Your task to perform on an android device: turn on location history Image 0: 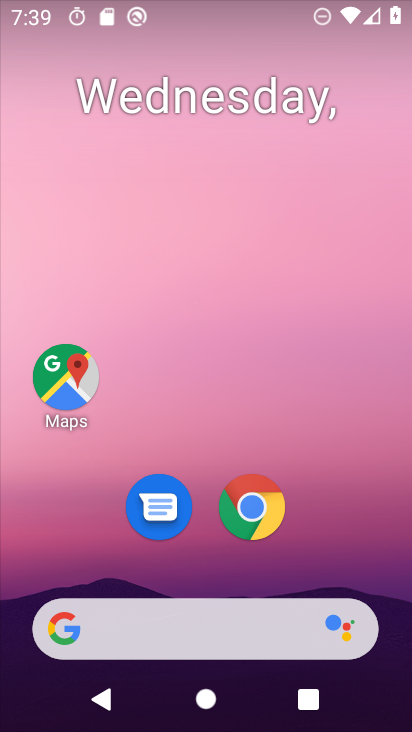
Step 0: drag from (253, 670) to (289, 122)
Your task to perform on an android device: turn on location history Image 1: 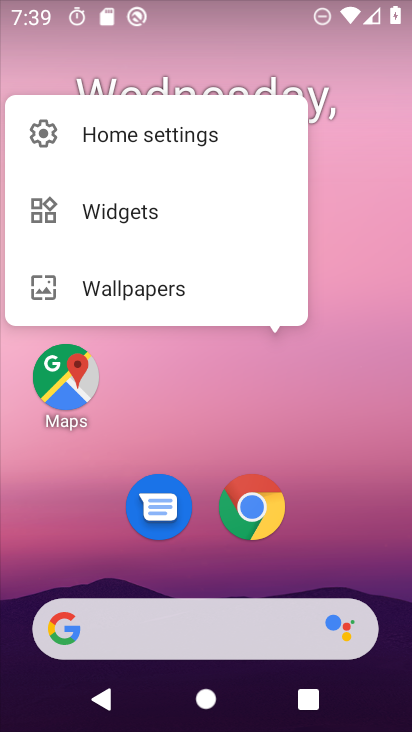
Step 1: click (367, 270)
Your task to perform on an android device: turn on location history Image 2: 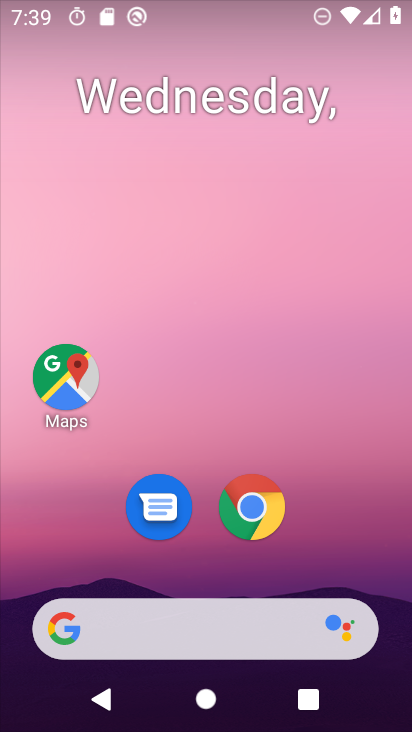
Step 2: drag from (237, 606) to (224, 115)
Your task to perform on an android device: turn on location history Image 3: 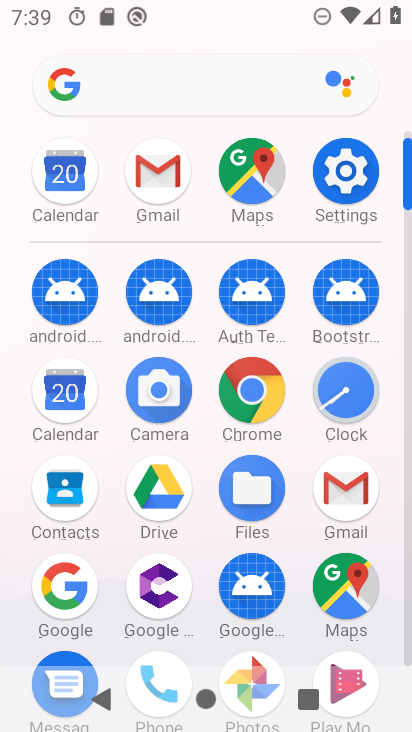
Step 3: click (352, 185)
Your task to perform on an android device: turn on location history Image 4: 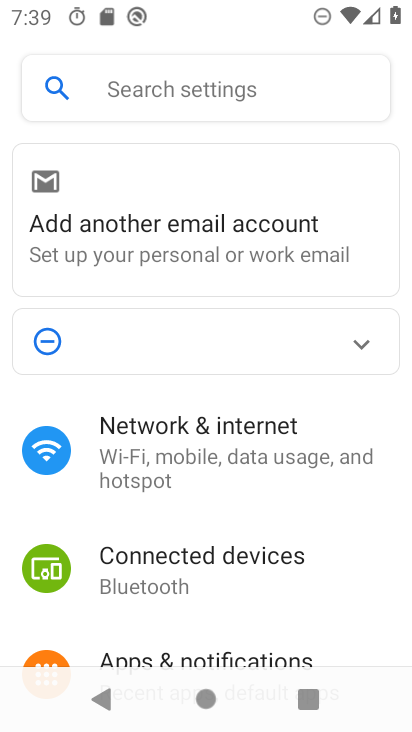
Step 4: click (209, 88)
Your task to perform on an android device: turn on location history Image 5: 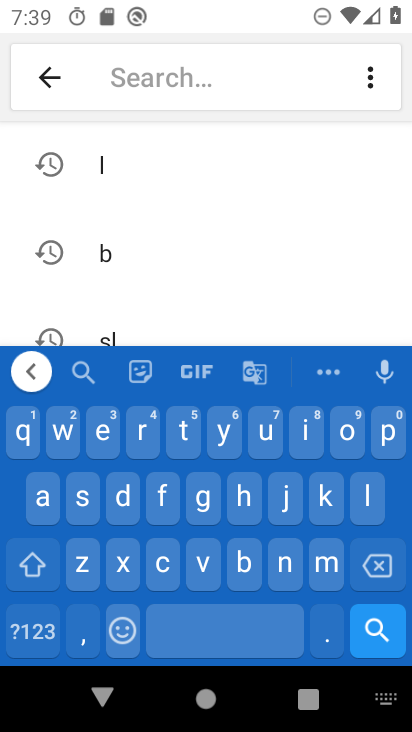
Step 5: click (150, 167)
Your task to perform on an android device: turn on location history Image 6: 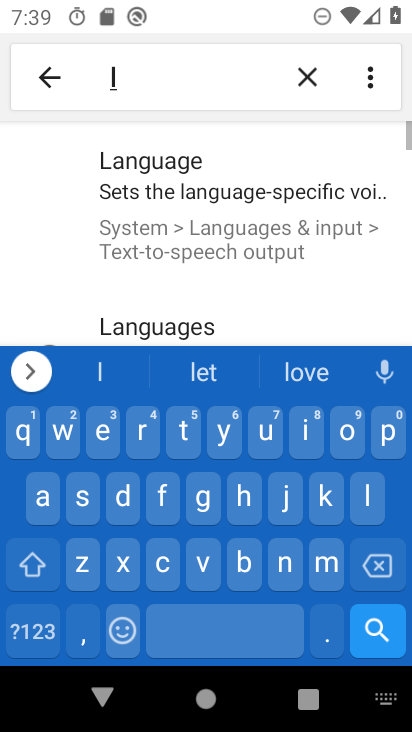
Step 6: drag from (204, 282) to (222, 102)
Your task to perform on an android device: turn on location history Image 7: 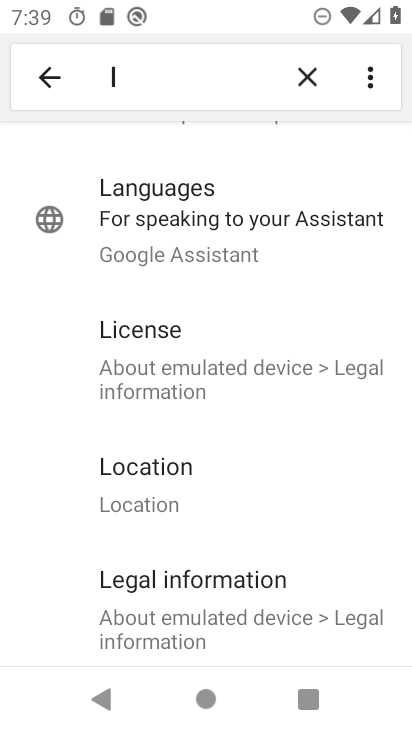
Step 7: click (159, 487)
Your task to perform on an android device: turn on location history Image 8: 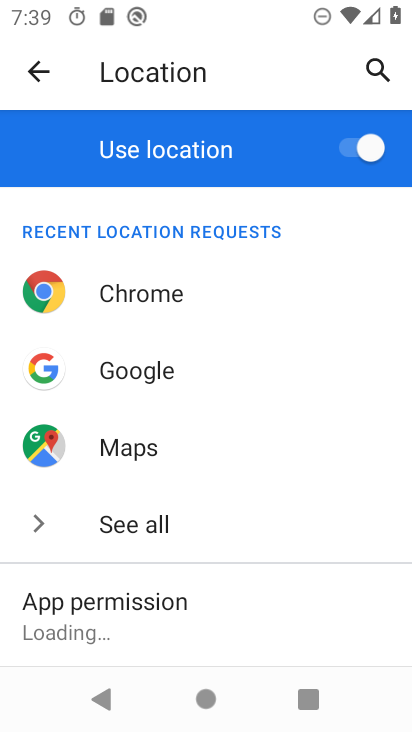
Step 8: drag from (190, 531) to (219, 250)
Your task to perform on an android device: turn on location history Image 9: 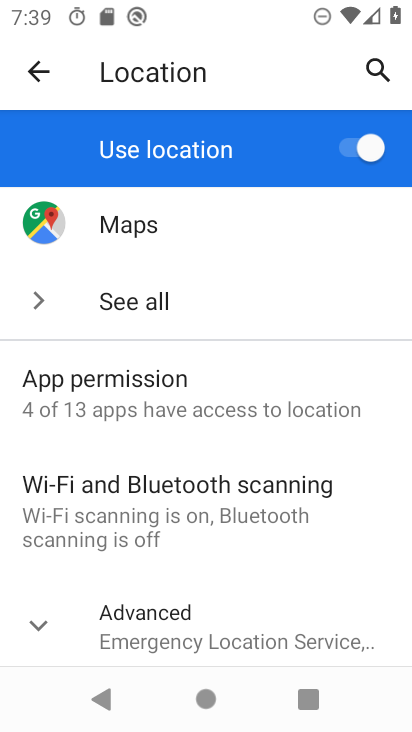
Step 9: click (98, 613)
Your task to perform on an android device: turn on location history Image 10: 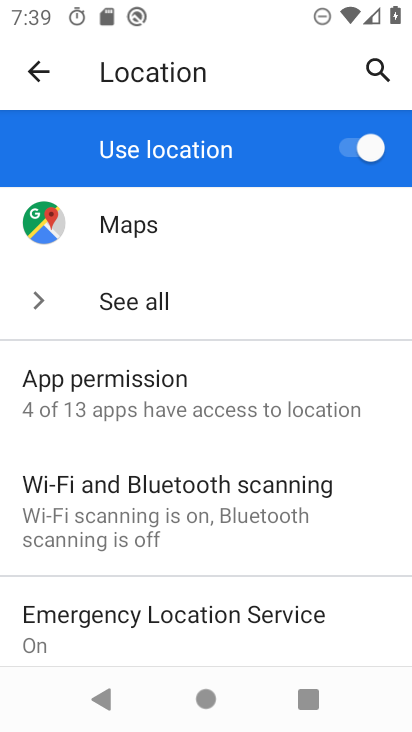
Step 10: drag from (193, 586) to (215, 385)
Your task to perform on an android device: turn on location history Image 11: 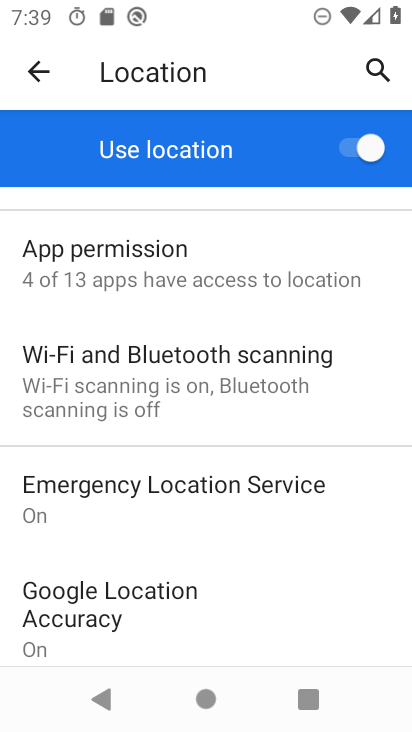
Step 11: drag from (208, 571) to (208, 337)
Your task to perform on an android device: turn on location history Image 12: 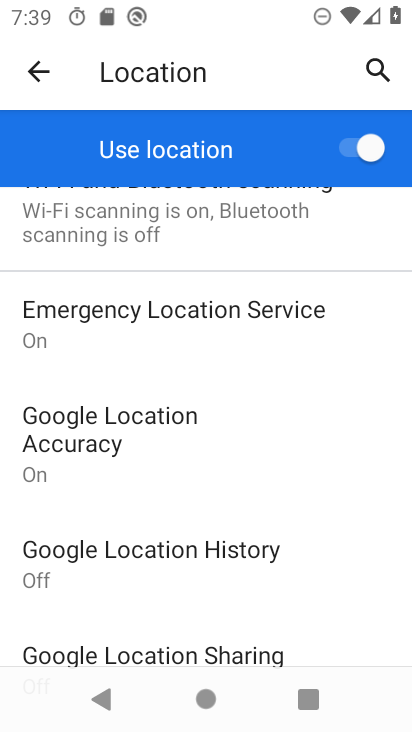
Step 12: click (140, 538)
Your task to perform on an android device: turn on location history Image 13: 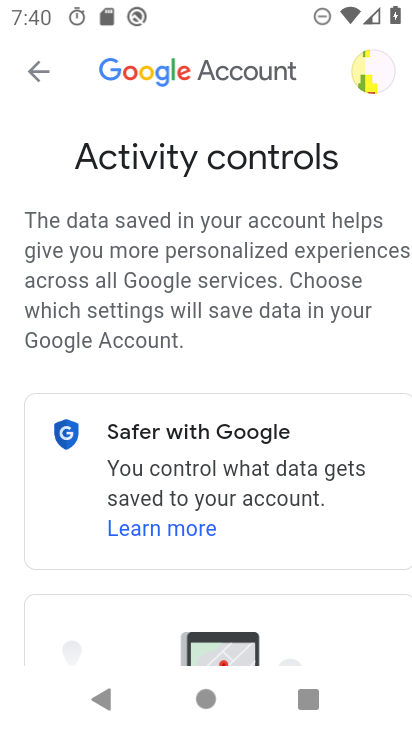
Step 13: drag from (221, 570) to (205, 320)
Your task to perform on an android device: turn on location history Image 14: 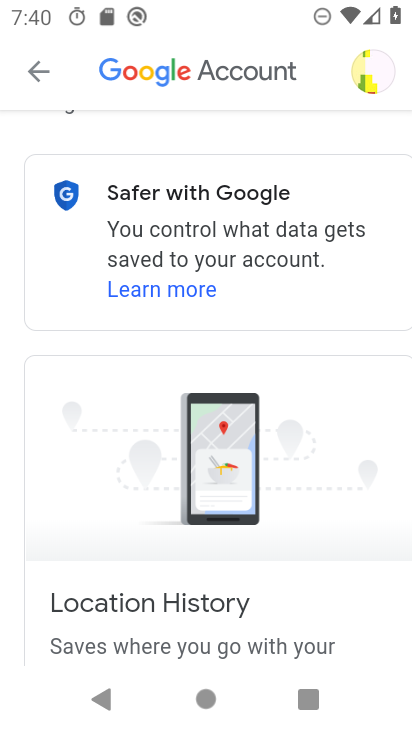
Step 14: drag from (237, 454) to (233, 322)
Your task to perform on an android device: turn on location history Image 15: 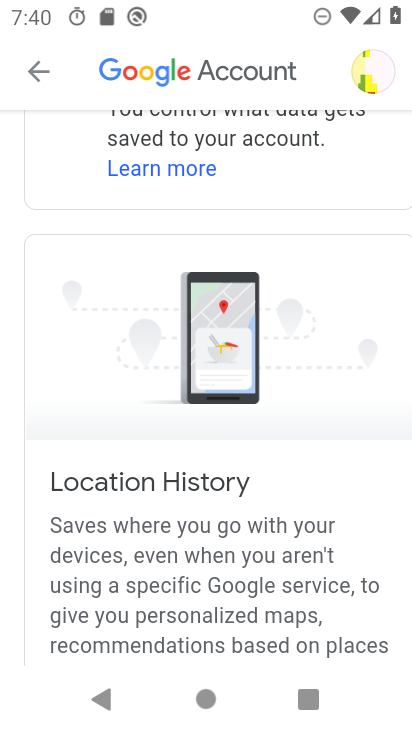
Step 15: drag from (233, 541) to (241, 244)
Your task to perform on an android device: turn on location history Image 16: 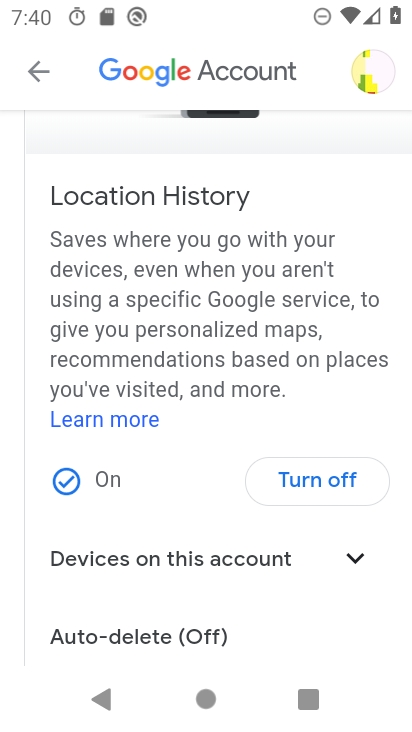
Step 16: click (99, 484)
Your task to perform on an android device: turn on location history Image 17: 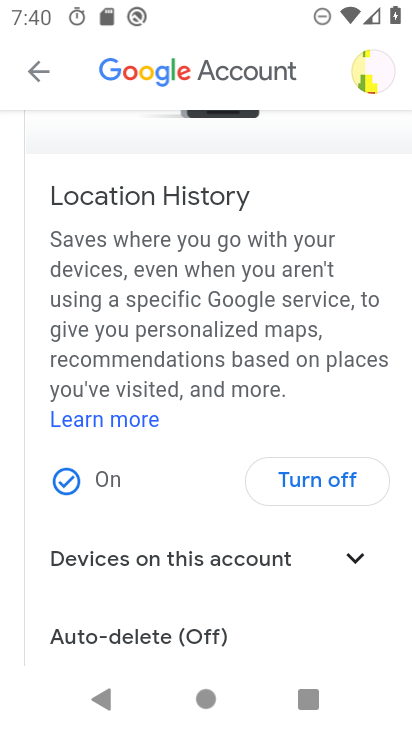
Step 17: click (99, 484)
Your task to perform on an android device: turn on location history Image 18: 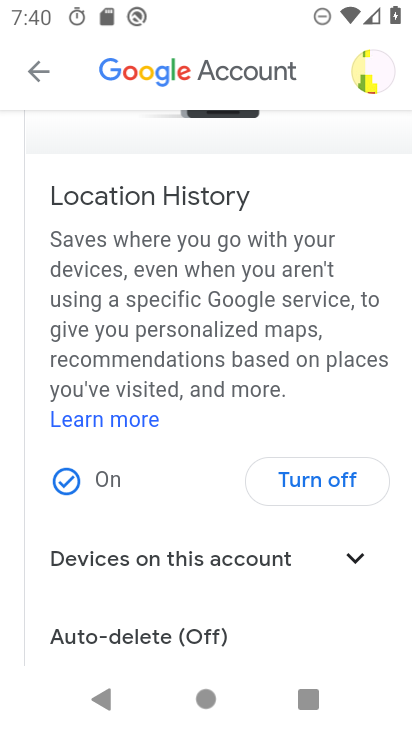
Step 18: click (99, 484)
Your task to perform on an android device: turn on location history Image 19: 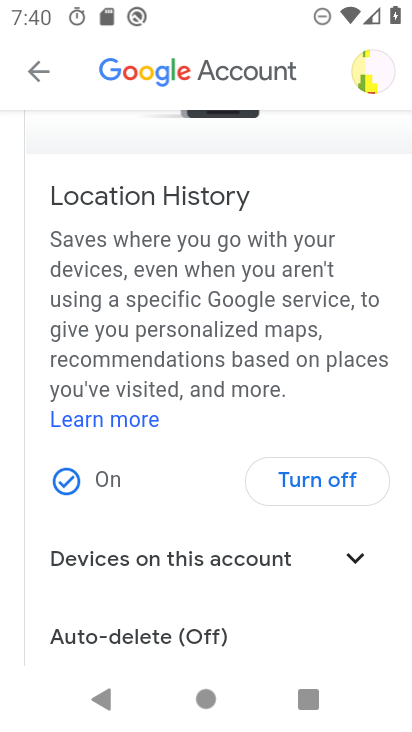
Step 19: task complete